Your task to perform on an android device: Go to Android settings Image 0: 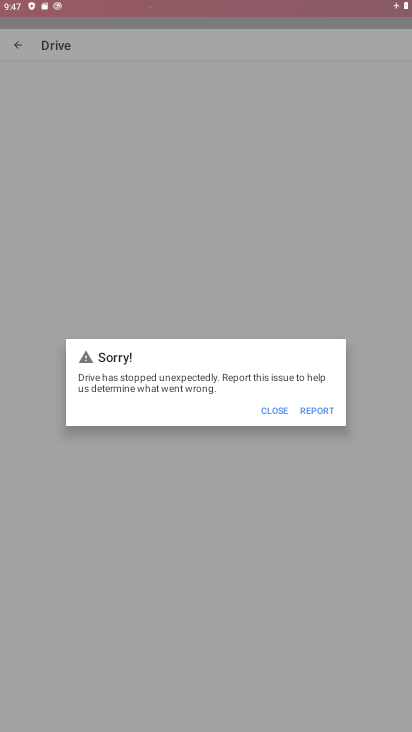
Step 0: drag from (230, 654) to (245, 194)
Your task to perform on an android device: Go to Android settings Image 1: 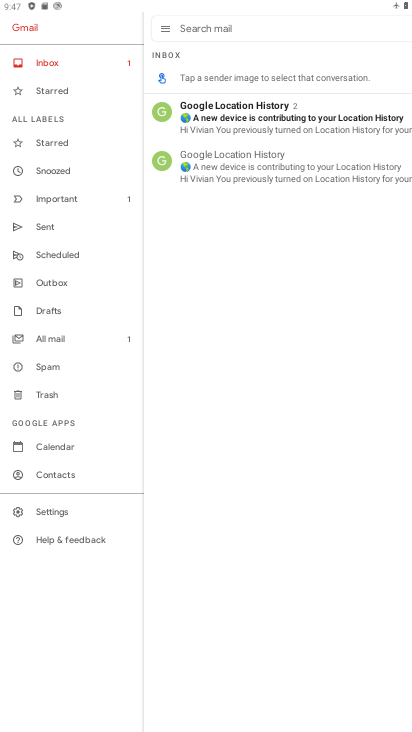
Step 1: press home button
Your task to perform on an android device: Go to Android settings Image 2: 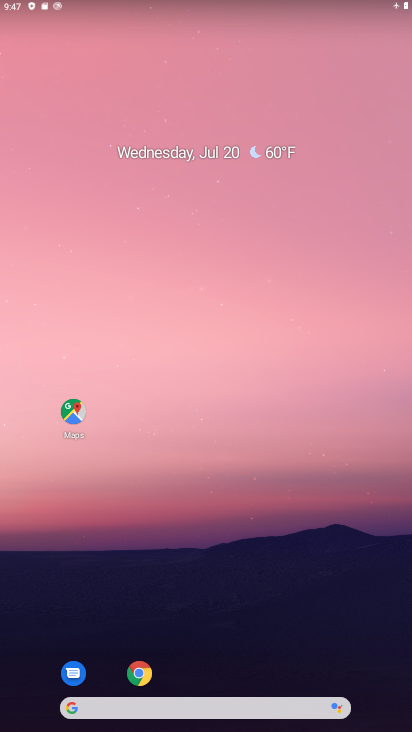
Step 2: drag from (218, 649) to (182, 107)
Your task to perform on an android device: Go to Android settings Image 3: 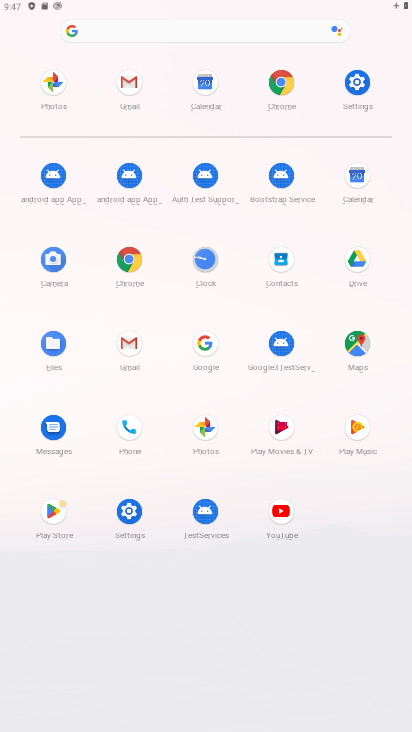
Step 3: click (132, 518)
Your task to perform on an android device: Go to Android settings Image 4: 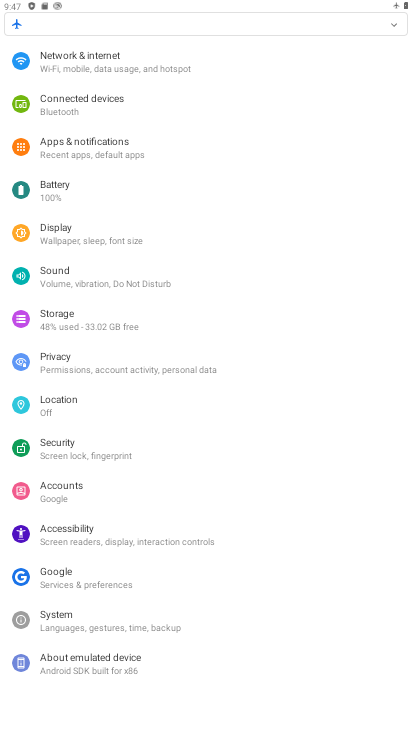
Step 4: drag from (109, 594) to (162, 280)
Your task to perform on an android device: Go to Android settings Image 5: 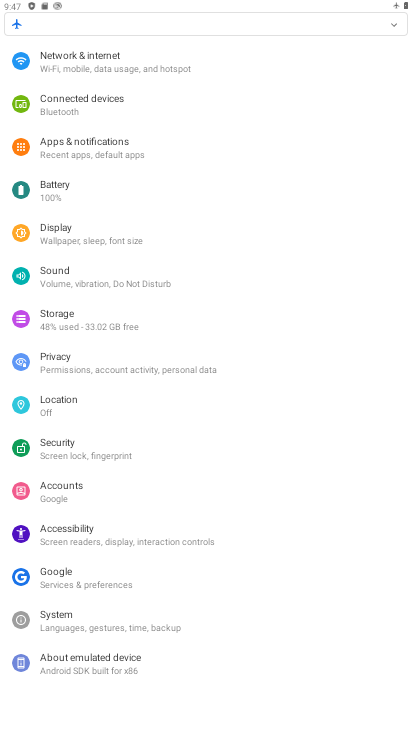
Step 5: click (94, 665)
Your task to perform on an android device: Go to Android settings Image 6: 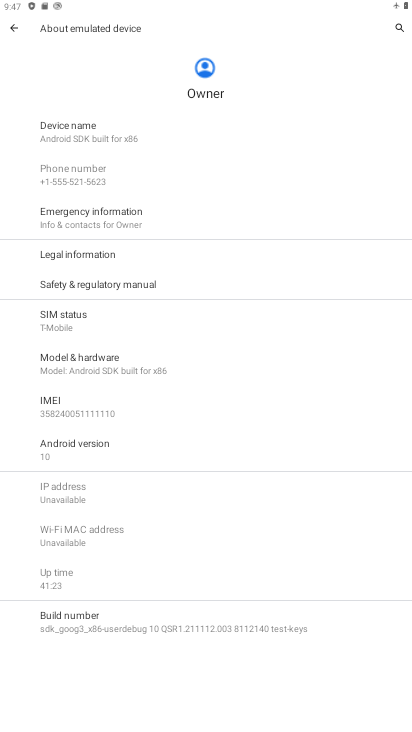
Step 6: click (90, 458)
Your task to perform on an android device: Go to Android settings Image 7: 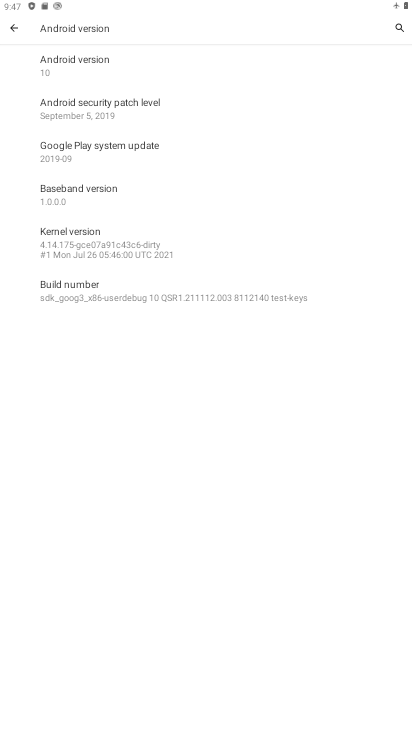
Step 7: task complete